Your task to perform on an android device: Add logitech g pro to the cart on bestbuy, then select checkout. Image 0: 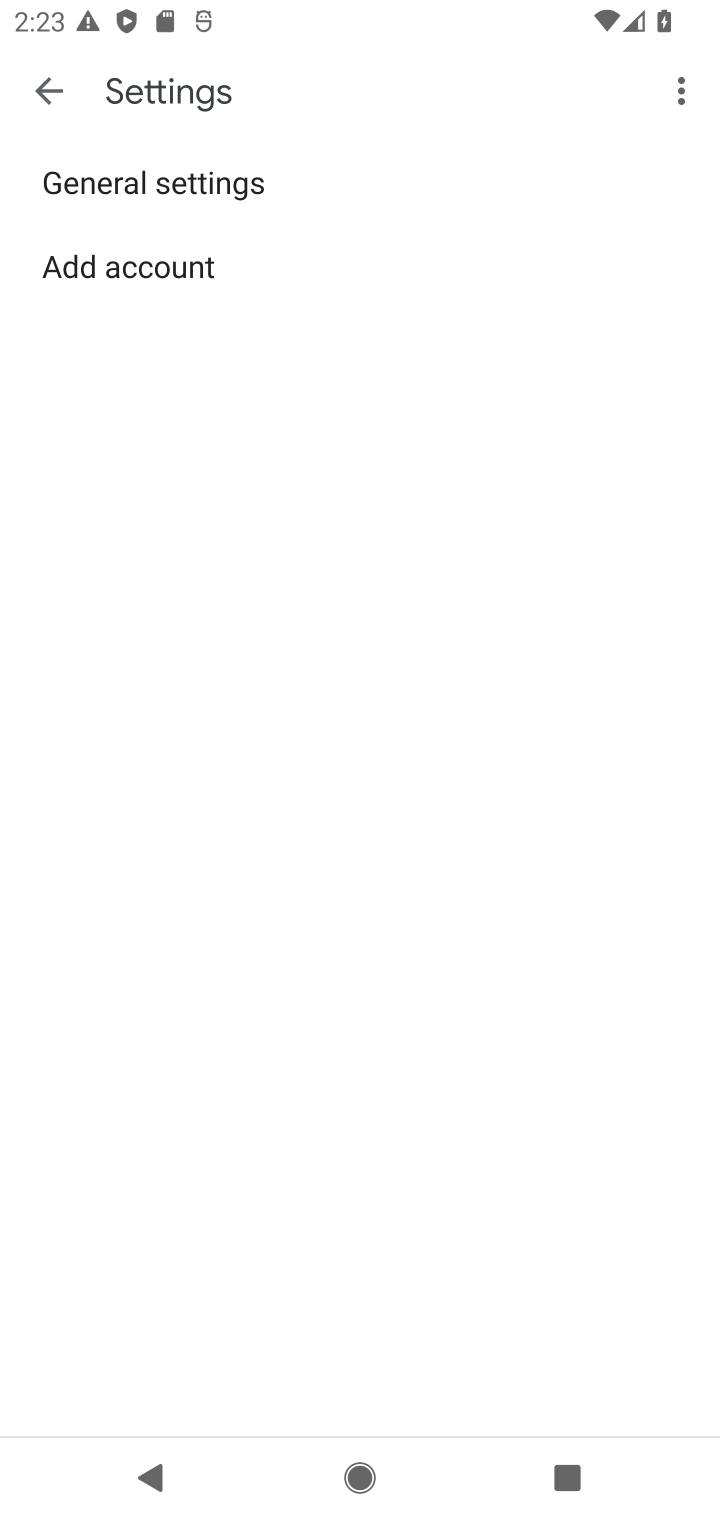
Step 0: press home button
Your task to perform on an android device: Add logitech g pro to the cart on bestbuy, then select checkout. Image 1: 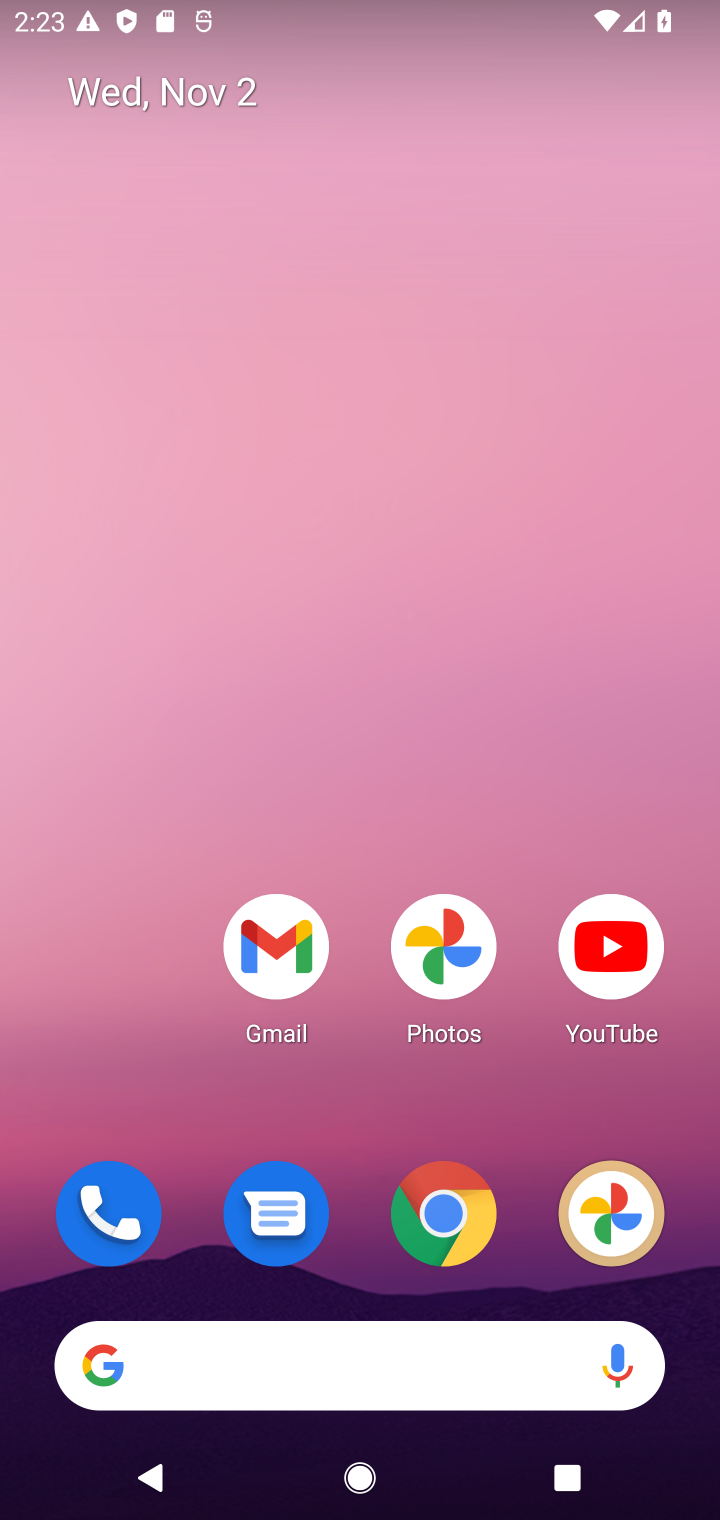
Step 1: click (423, 1217)
Your task to perform on an android device: Add logitech g pro to the cart on bestbuy, then select checkout. Image 2: 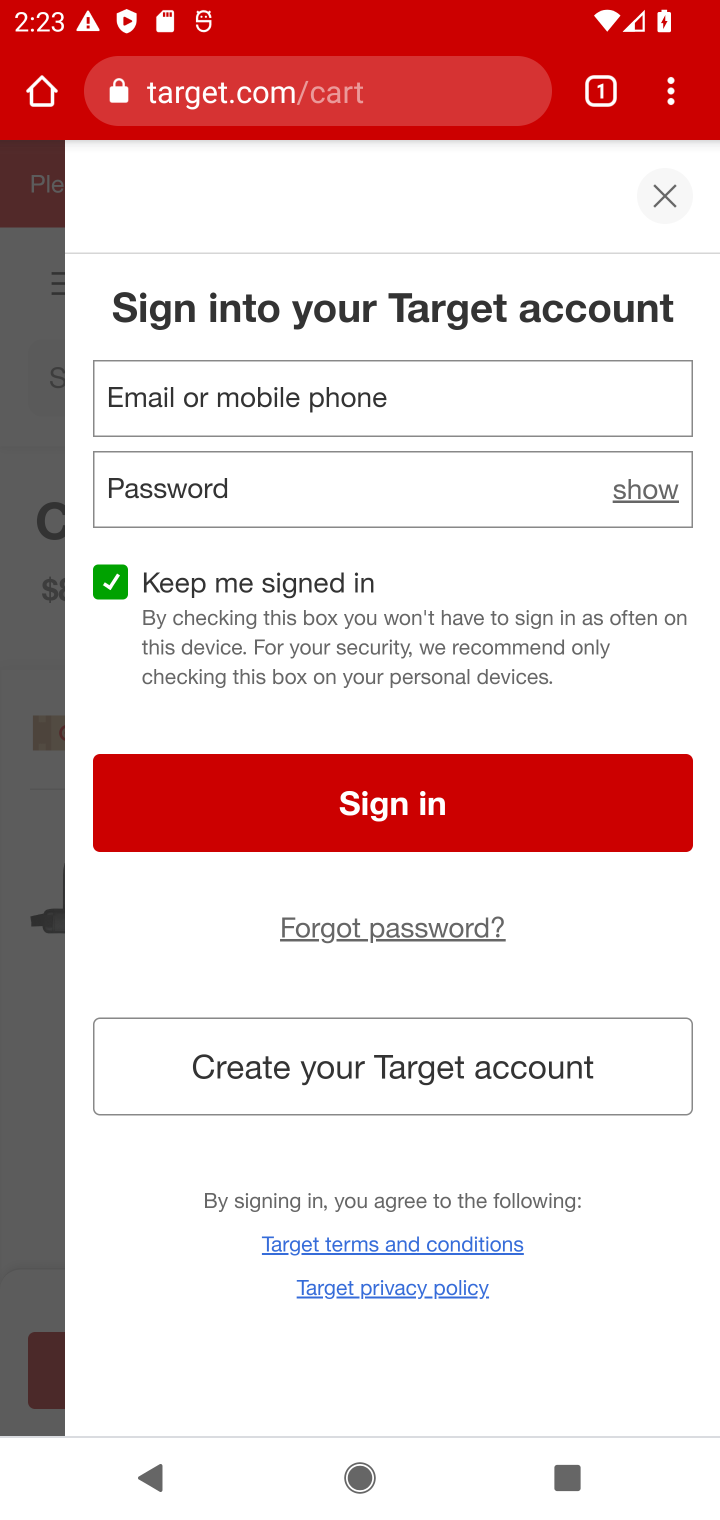
Step 2: click (285, 89)
Your task to perform on an android device: Add logitech g pro to the cart on bestbuy, then select checkout. Image 3: 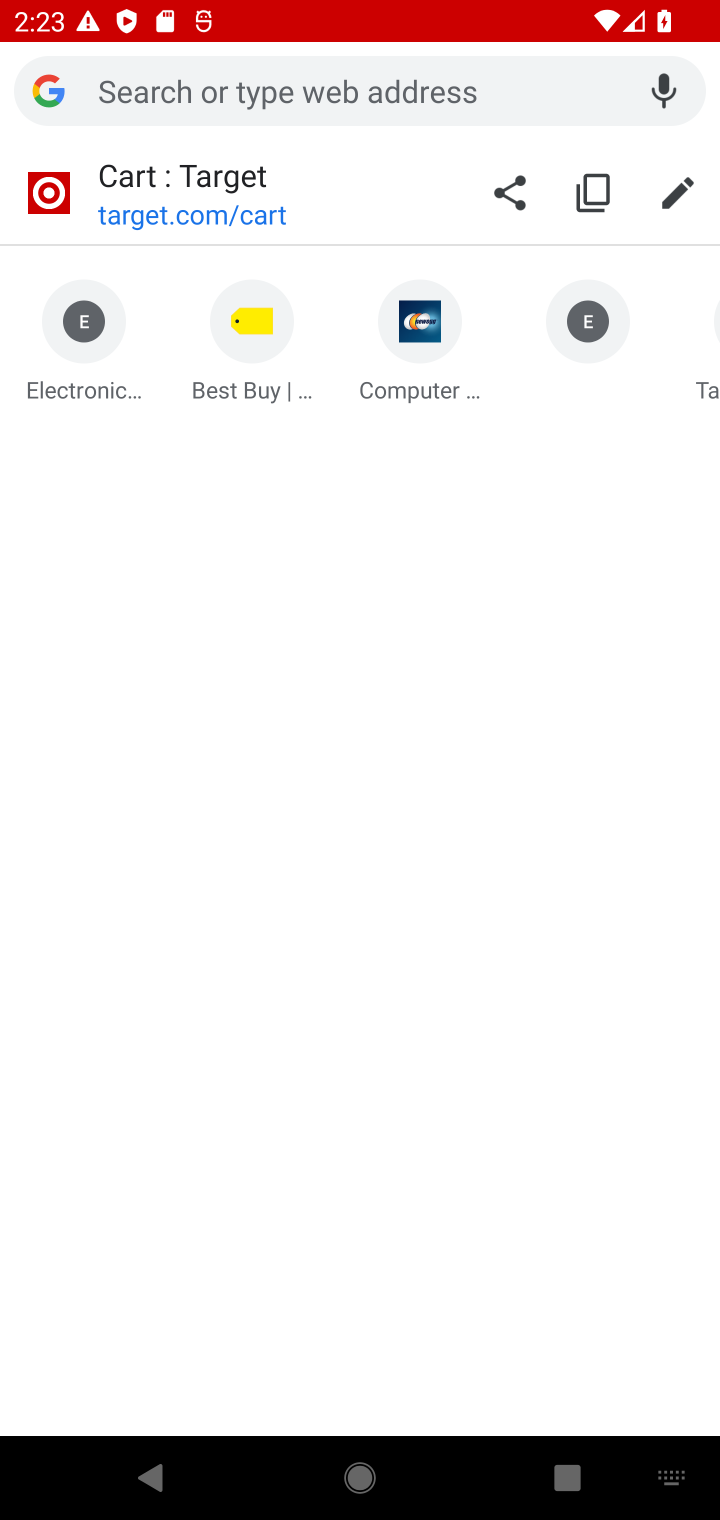
Step 3: click (265, 335)
Your task to perform on an android device: Add logitech g pro to the cart on bestbuy, then select checkout. Image 4: 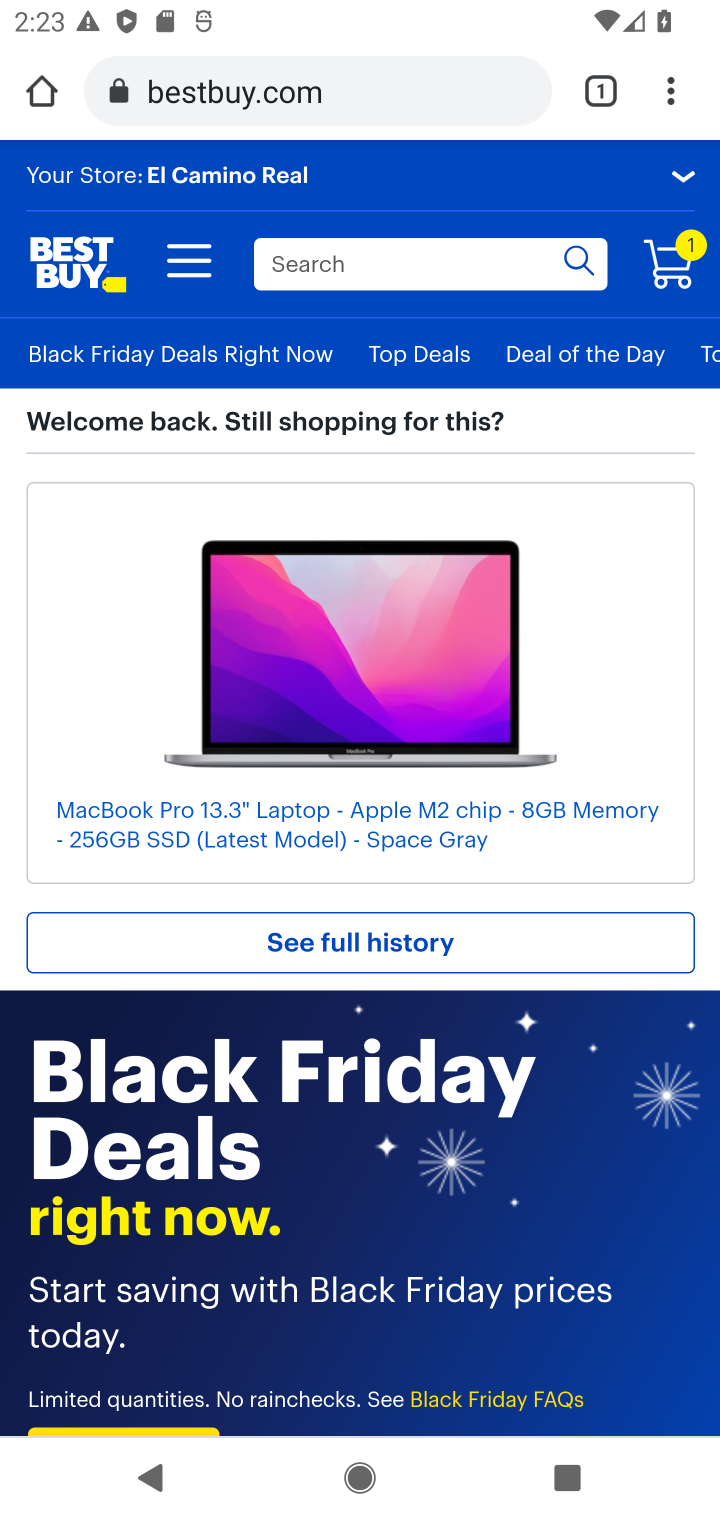
Step 4: click (373, 259)
Your task to perform on an android device: Add logitech g pro to the cart on bestbuy, then select checkout. Image 5: 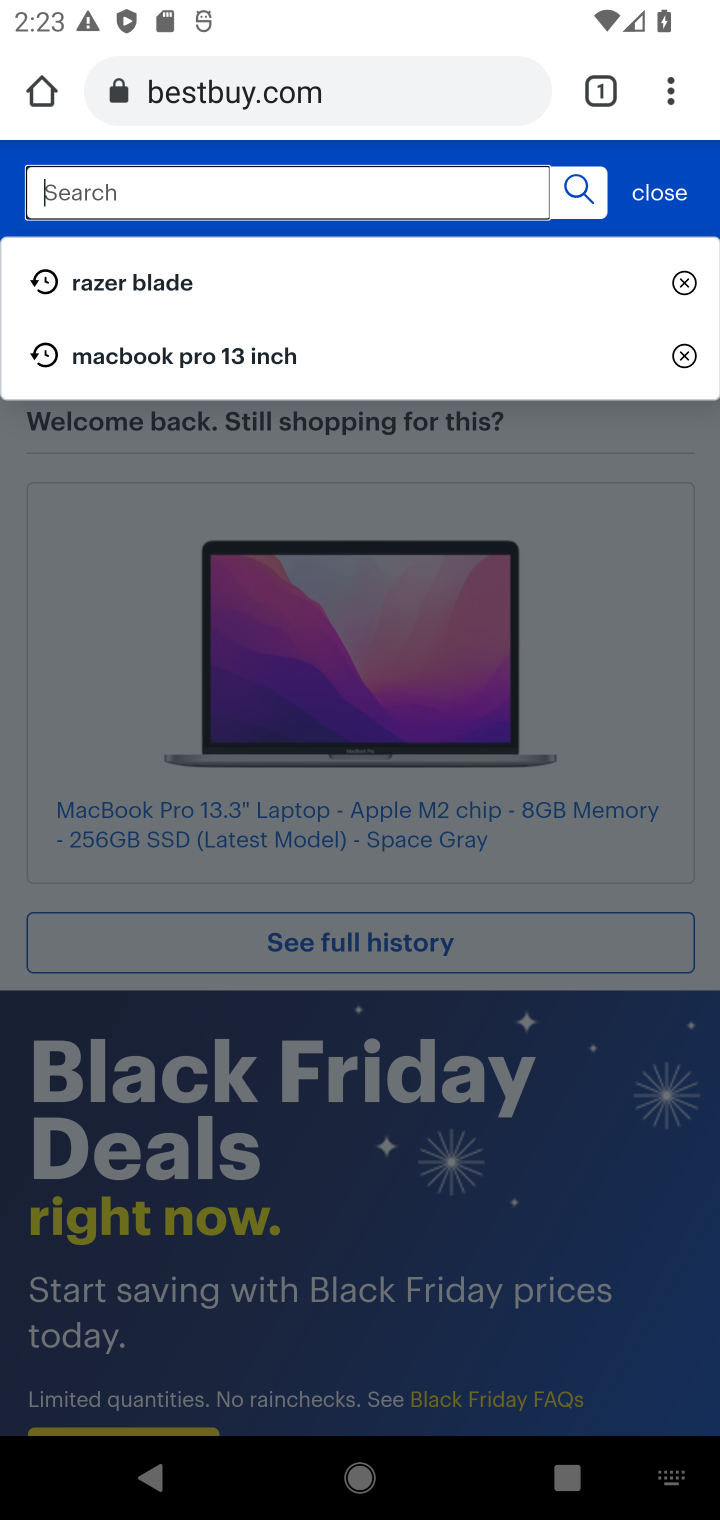
Step 5: type "logitech g pro"
Your task to perform on an android device: Add logitech g pro to the cart on bestbuy, then select checkout. Image 6: 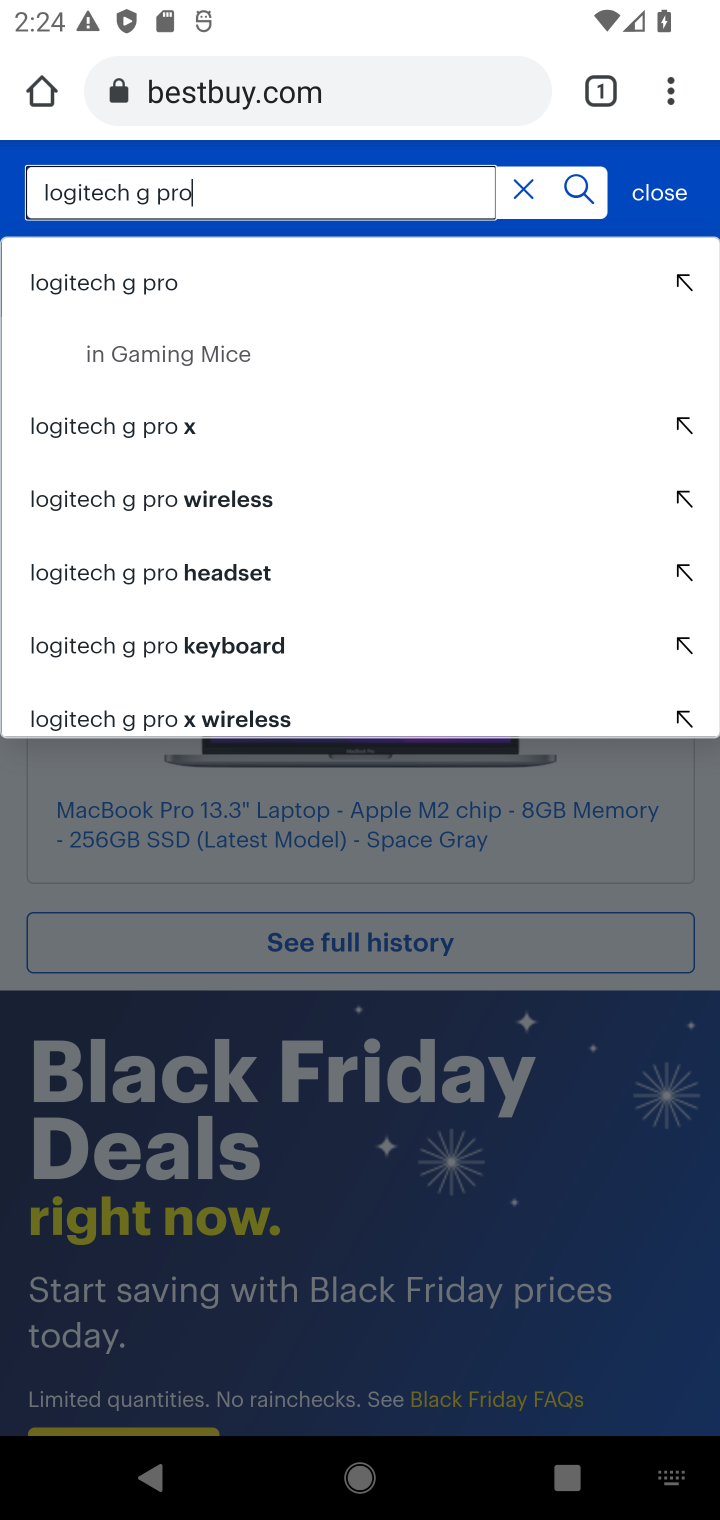
Step 6: click (123, 288)
Your task to perform on an android device: Add logitech g pro to the cart on bestbuy, then select checkout. Image 7: 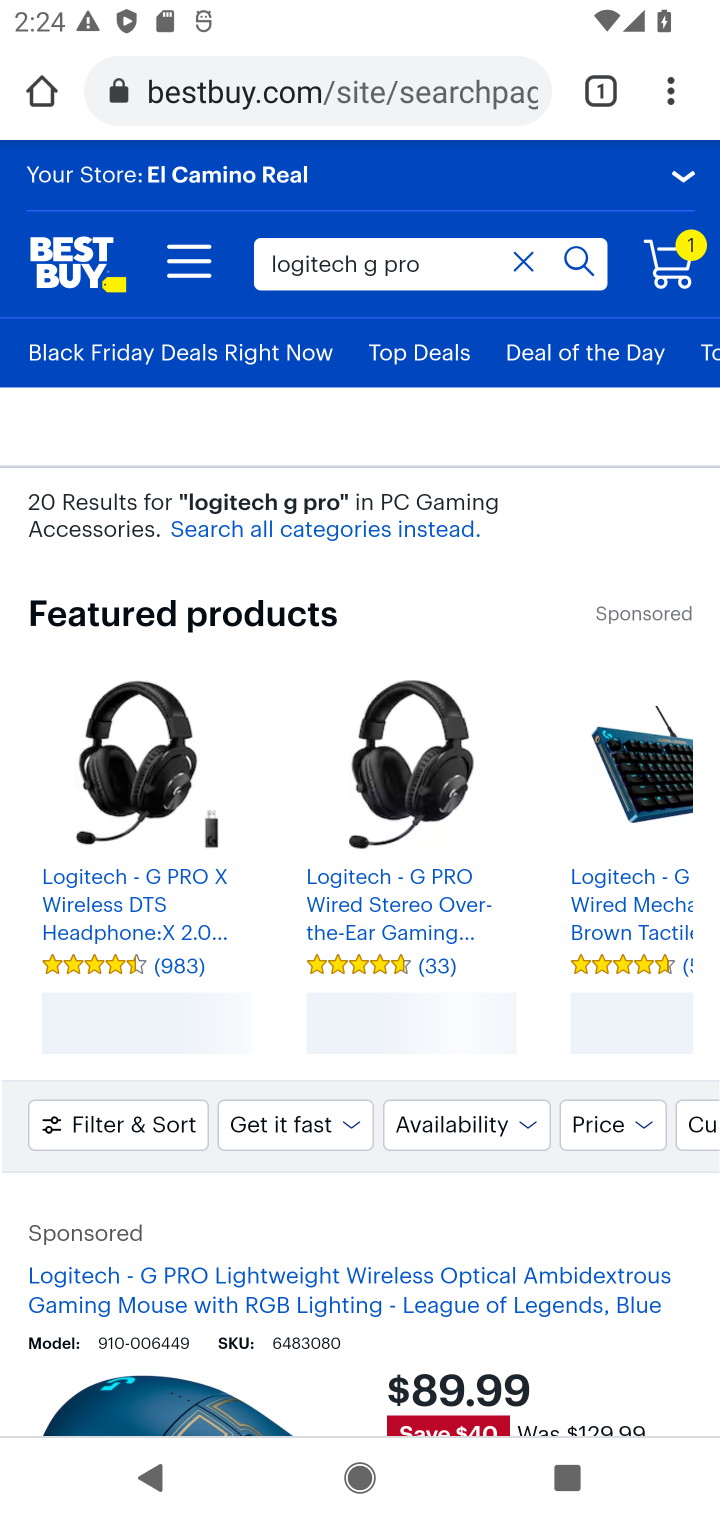
Step 7: drag from (263, 1195) to (309, 770)
Your task to perform on an android device: Add logitech g pro to the cart on bestbuy, then select checkout. Image 8: 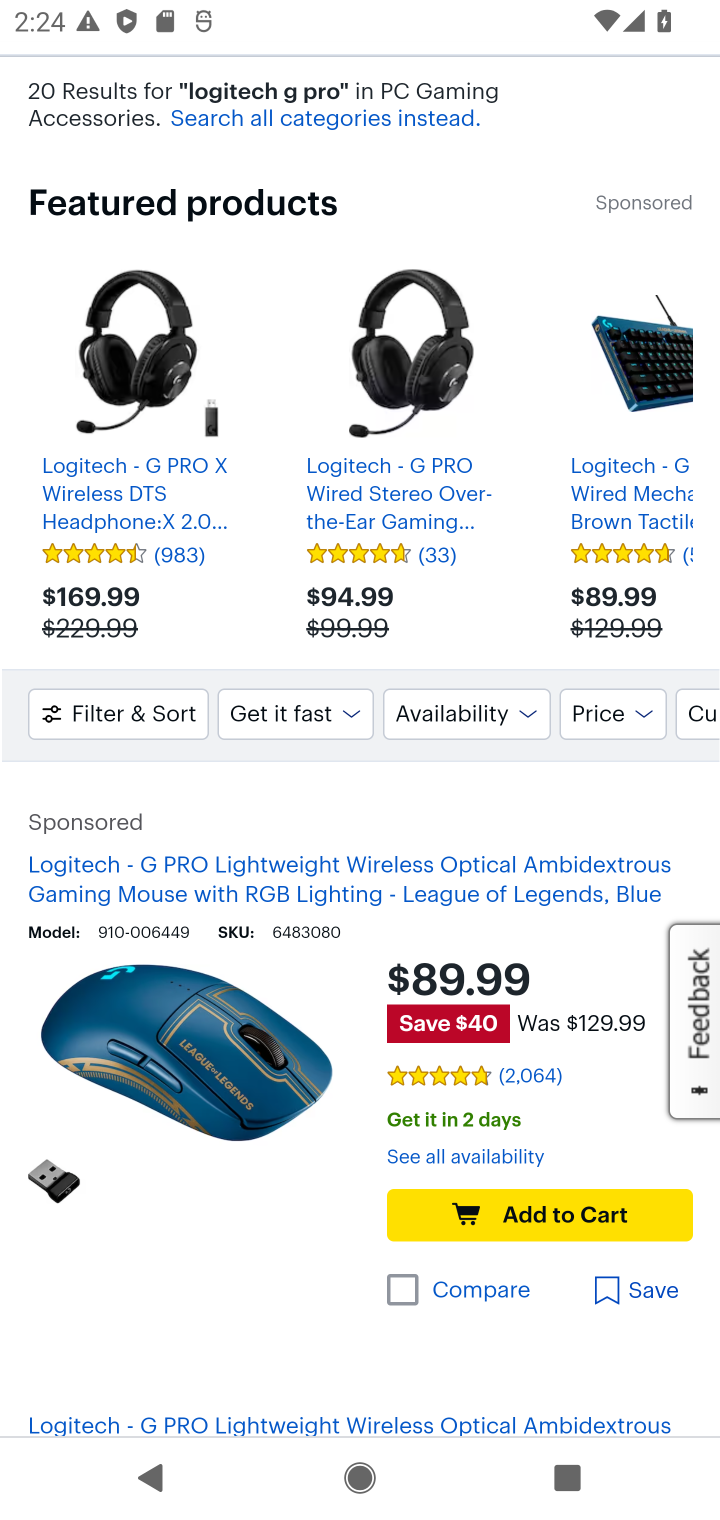
Step 8: click (245, 1161)
Your task to perform on an android device: Add logitech g pro to the cart on bestbuy, then select checkout. Image 9: 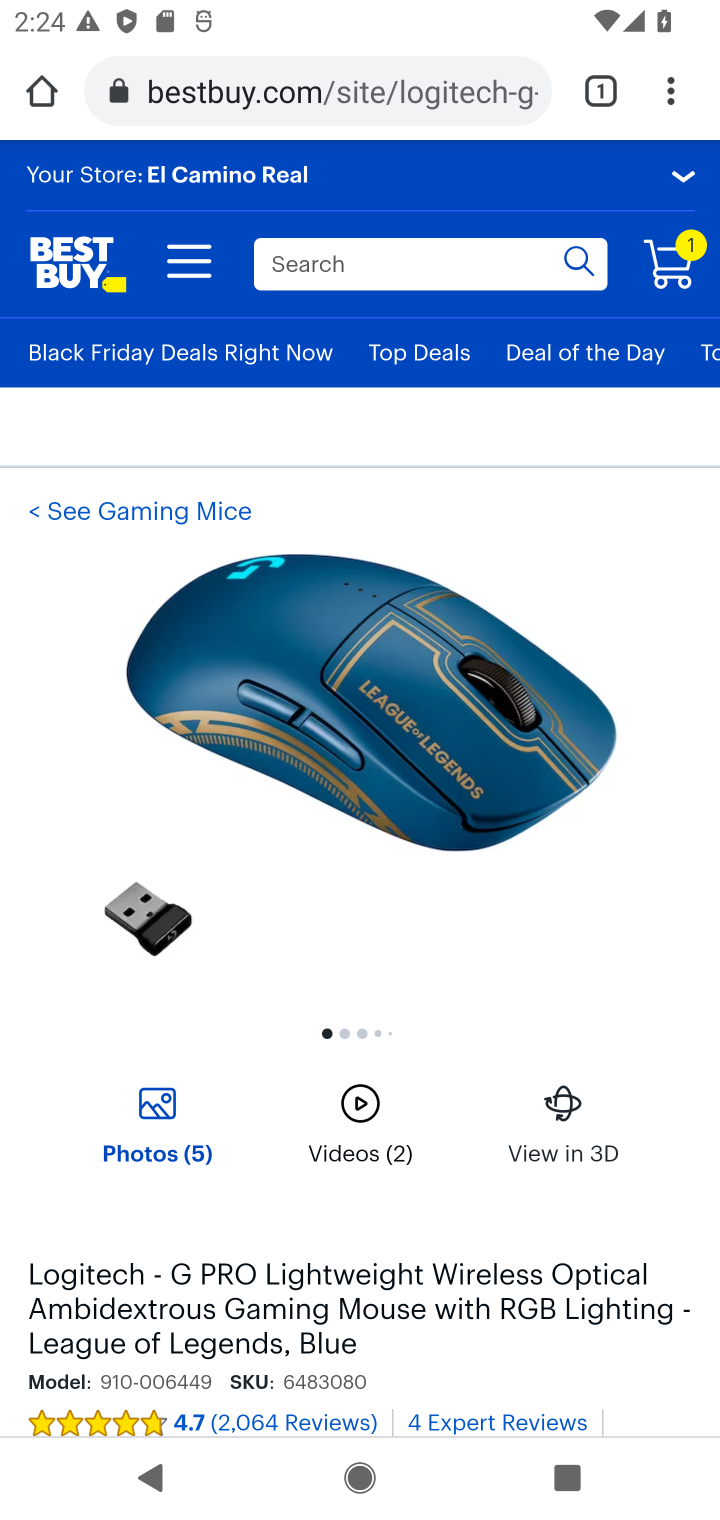
Step 9: drag from (464, 1335) to (430, 10)
Your task to perform on an android device: Add logitech g pro to the cart on bestbuy, then select checkout. Image 10: 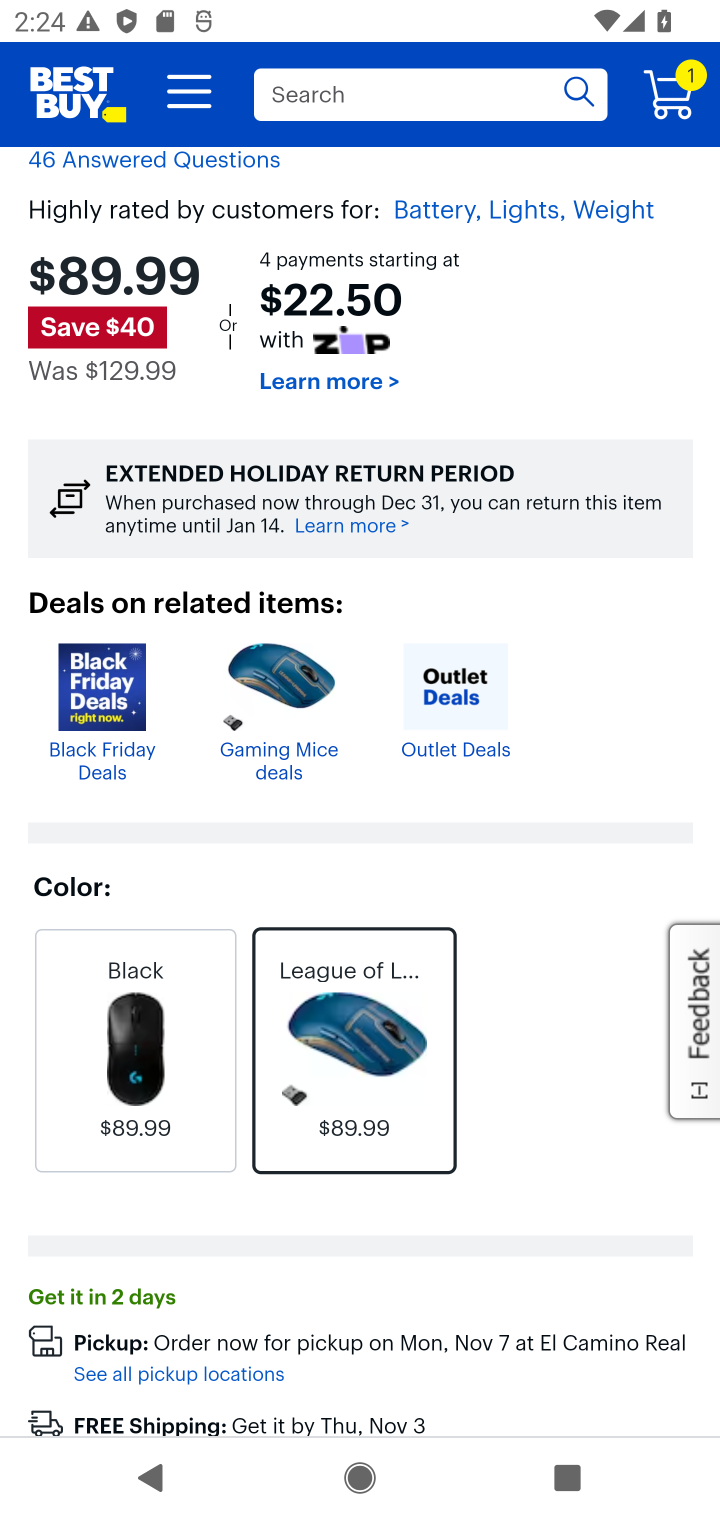
Step 10: drag from (444, 1276) to (422, 395)
Your task to perform on an android device: Add logitech g pro to the cart on bestbuy, then select checkout. Image 11: 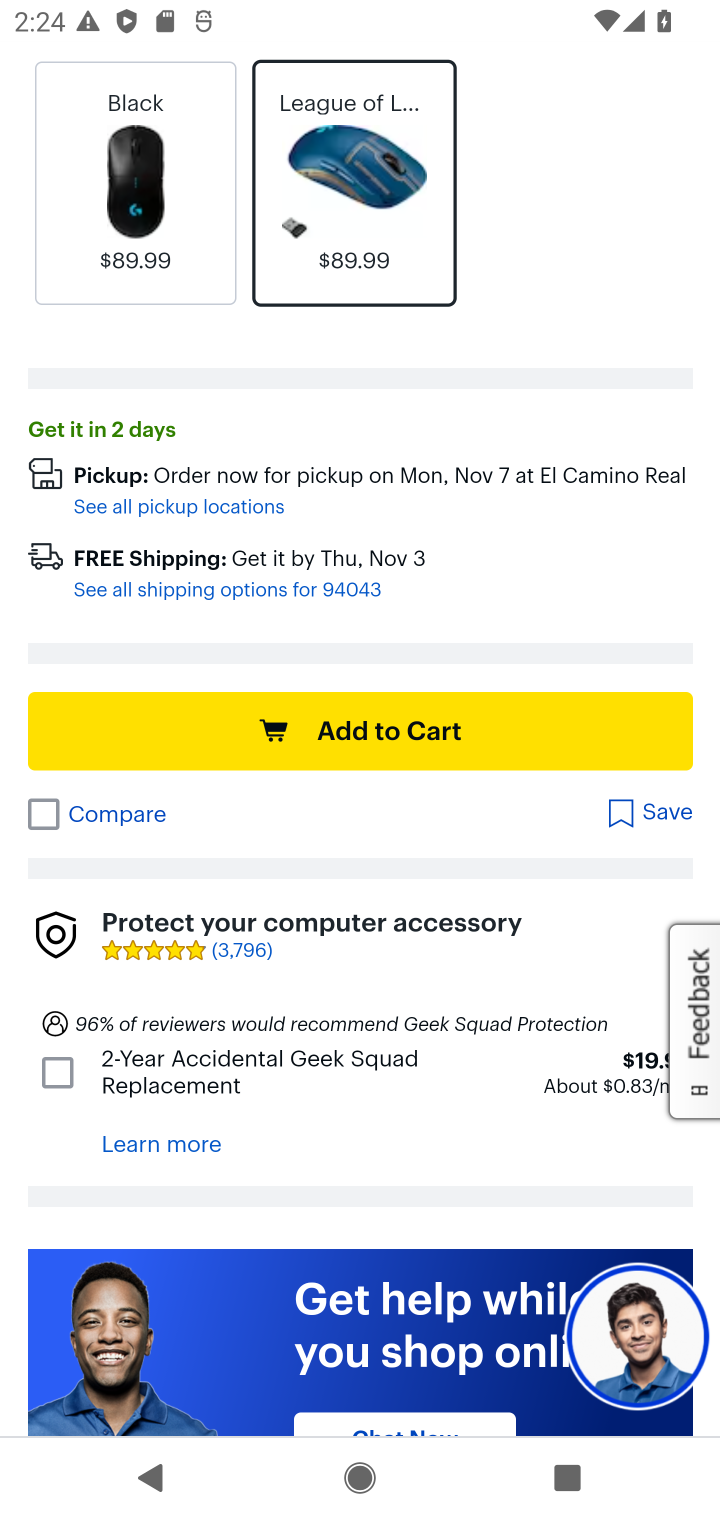
Step 11: click (372, 728)
Your task to perform on an android device: Add logitech g pro to the cart on bestbuy, then select checkout. Image 12: 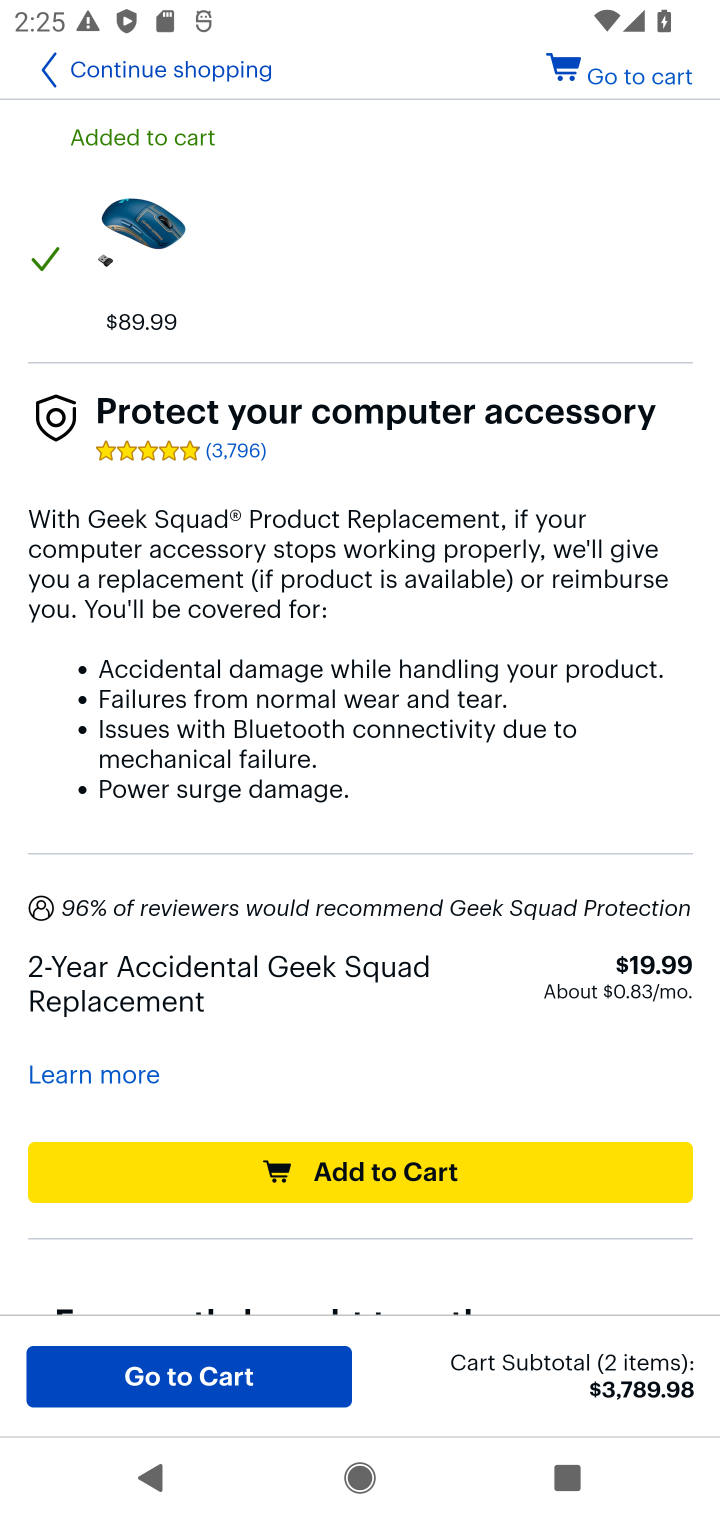
Step 12: click (195, 1375)
Your task to perform on an android device: Add logitech g pro to the cart on bestbuy, then select checkout. Image 13: 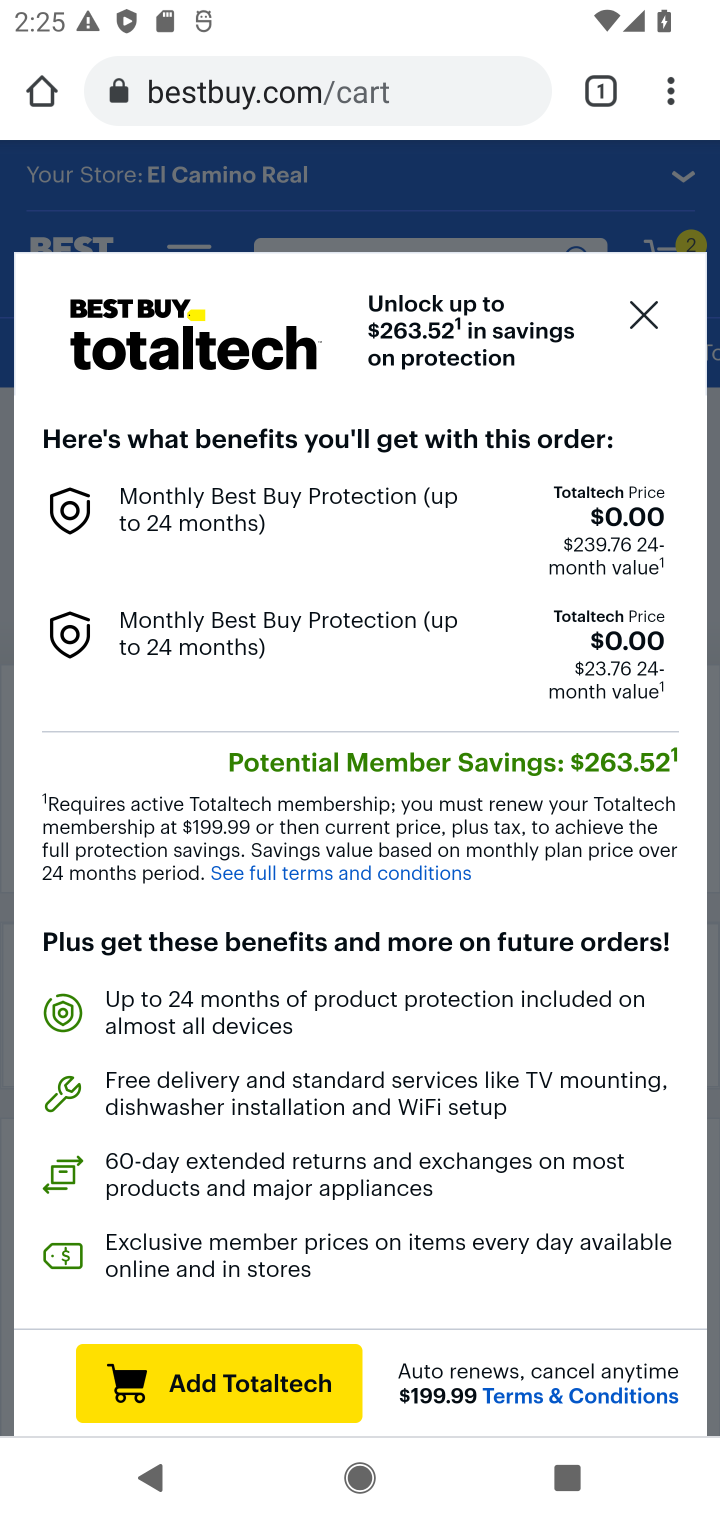
Step 13: click (653, 307)
Your task to perform on an android device: Add logitech g pro to the cart on bestbuy, then select checkout. Image 14: 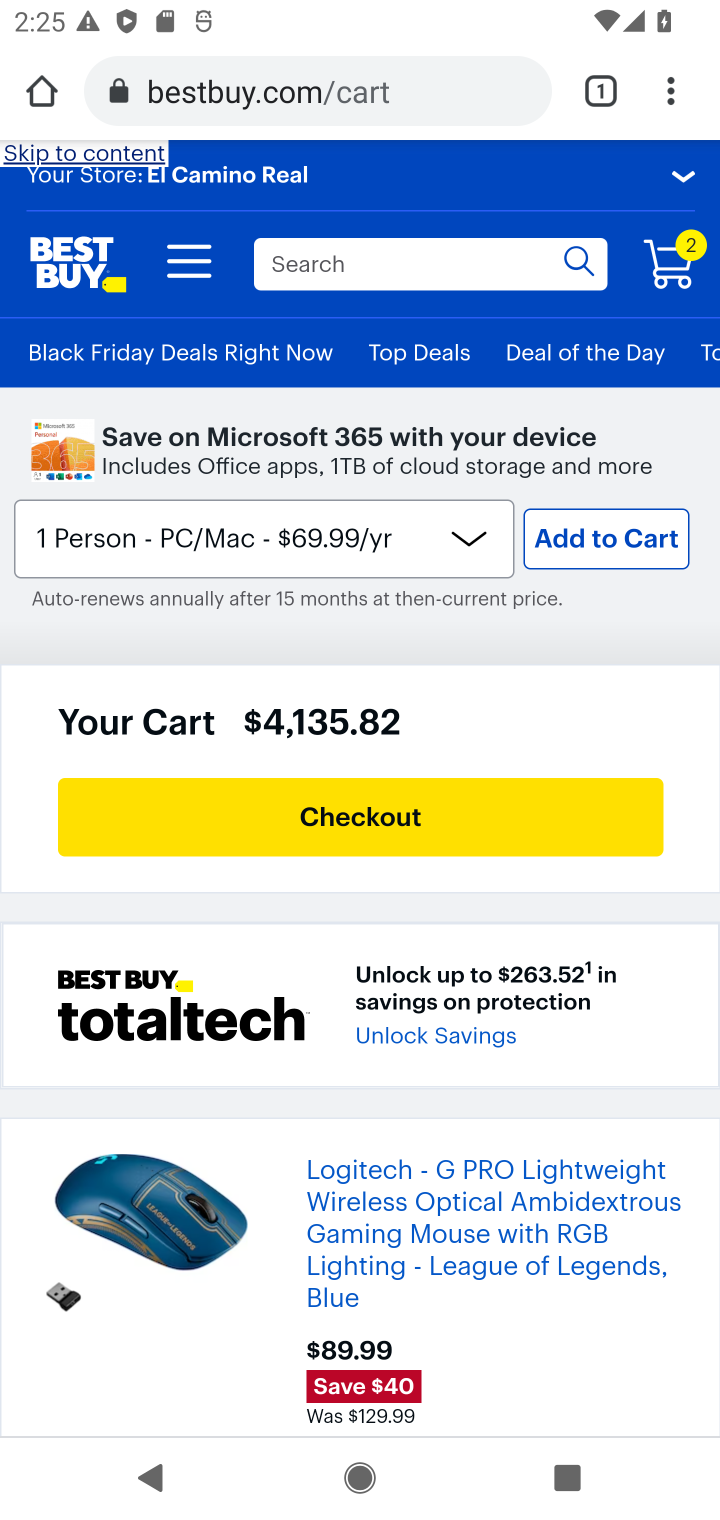
Step 14: click (449, 827)
Your task to perform on an android device: Add logitech g pro to the cart on bestbuy, then select checkout. Image 15: 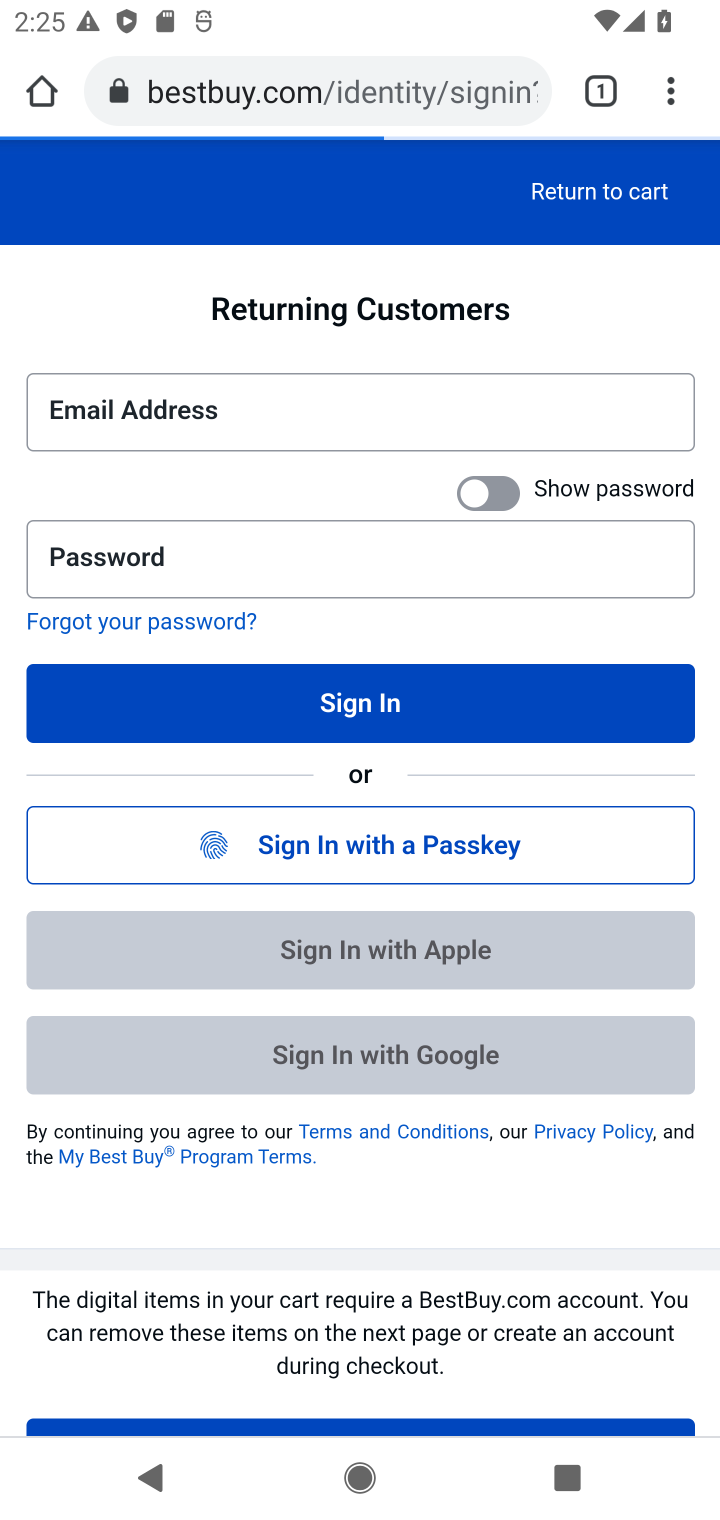
Step 15: task complete